Your task to perform on an android device: Open location settings Image 0: 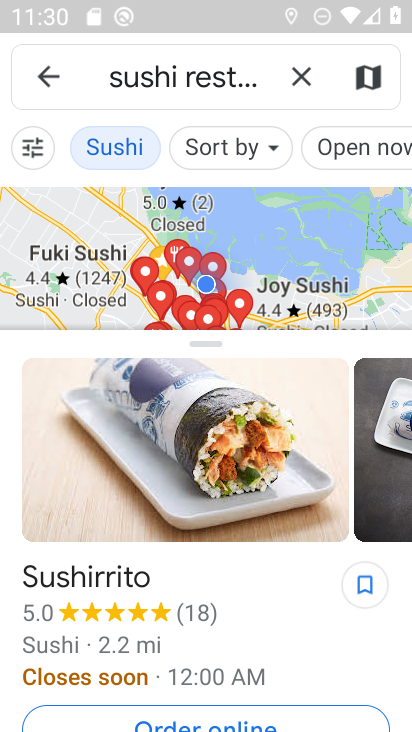
Step 0: press home button
Your task to perform on an android device: Open location settings Image 1: 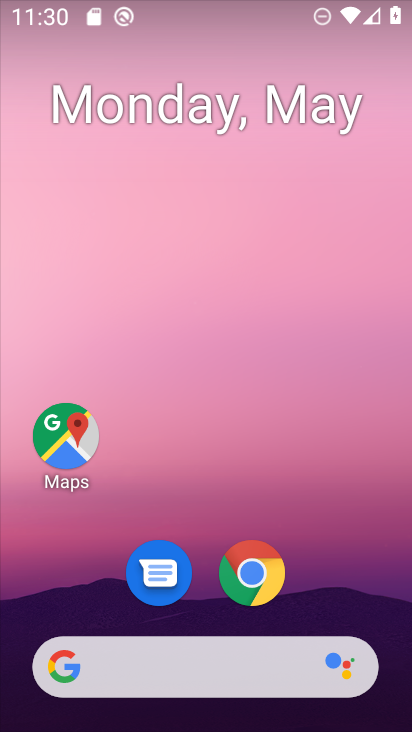
Step 1: drag from (336, 243) to (232, 16)
Your task to perform on an android device: Open location settings Image 2: 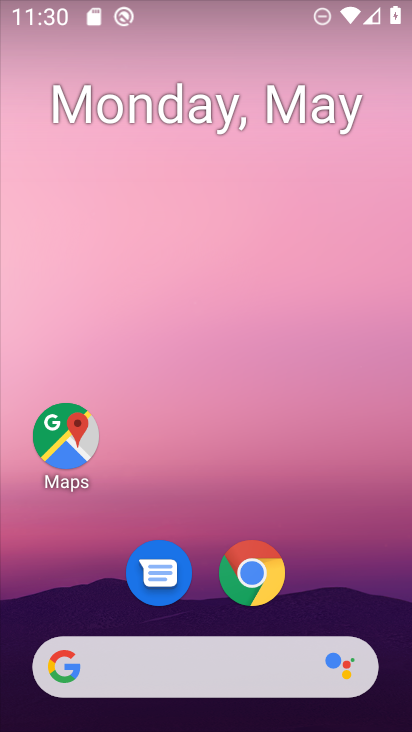
Step 2: drag from (236, 263) to (129, 11)
Your task to perform on an android device: Open location settings Image 3: 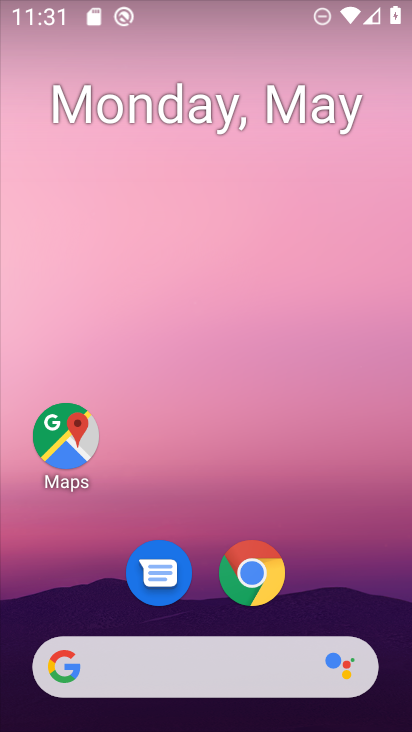
Step 3: drag from (356, 544) to (214, 27)
Your task to perform on an android device: Open location settings Image 4: 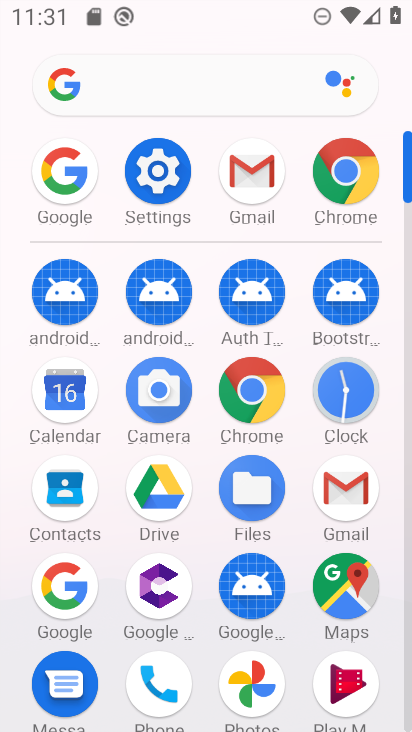
Step 4: click (134, 165)
Your task to perform on an android device: Open location settings Image 5: 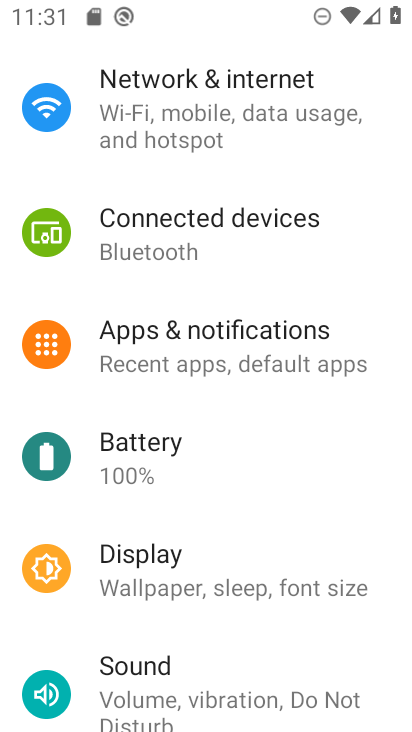
Step 5: drag from (239, 572) to (214, 80)
Your task to perform on an android device: Open location settings Image 6: 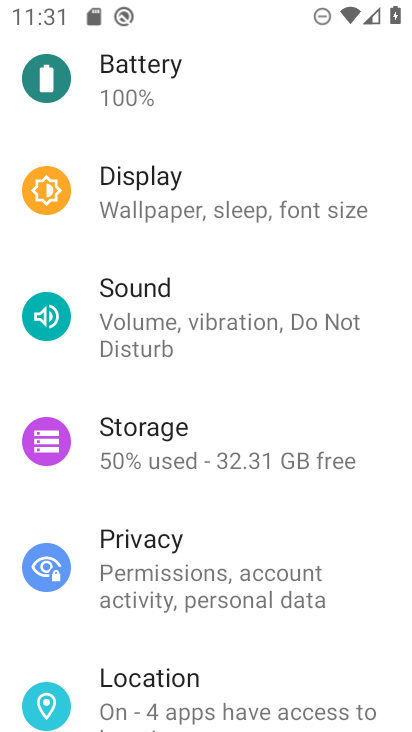
Step 6: click (217, 663)
Your task to perform on an android device: Open location settings Image 7: 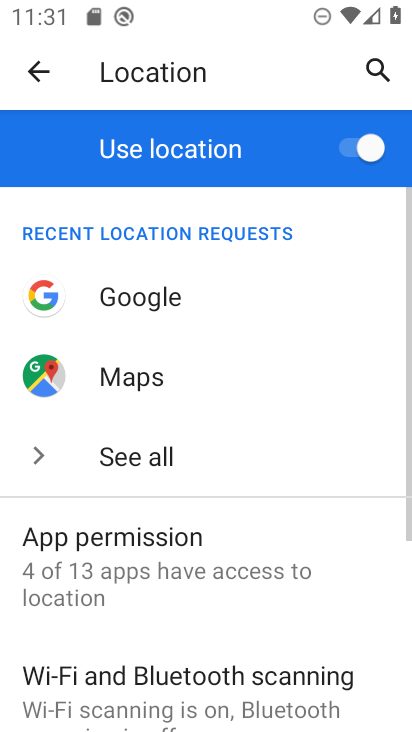
Step 7: task complete